Your task to perform on an android device: check out phone information Image 0: 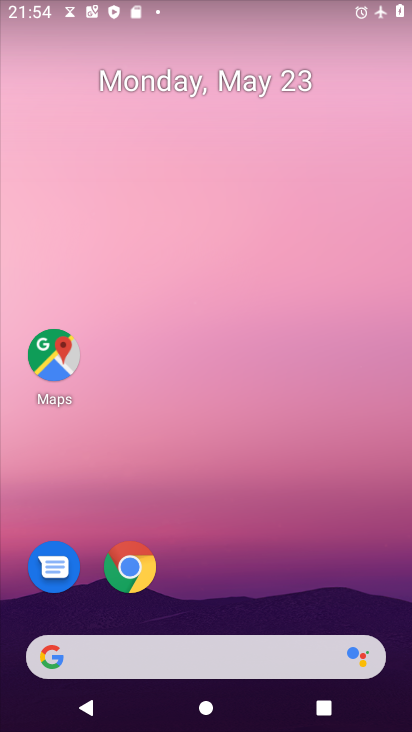
Step 0: drag from (317, 605) to (306, 287)
Your task to perform on an android device: check out phone information Image 1: 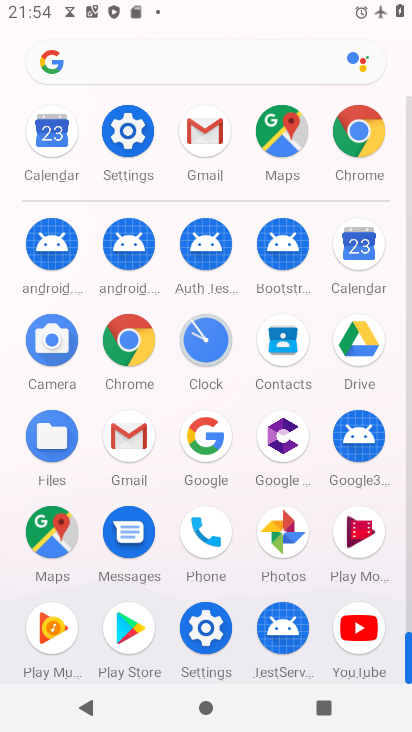
Step 1: click (134, 120)
Your task to perform on an android device: check out phone information Image 2: 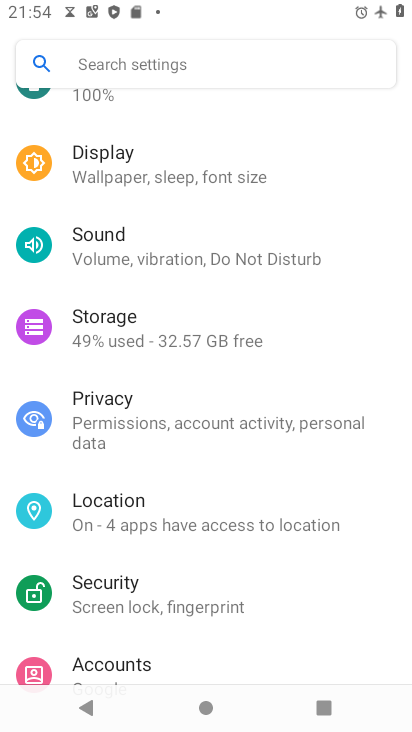
Step 2: drag from (287, 656) to (287, 264)
Your task to perform on an android device: check out phone information Image 3: 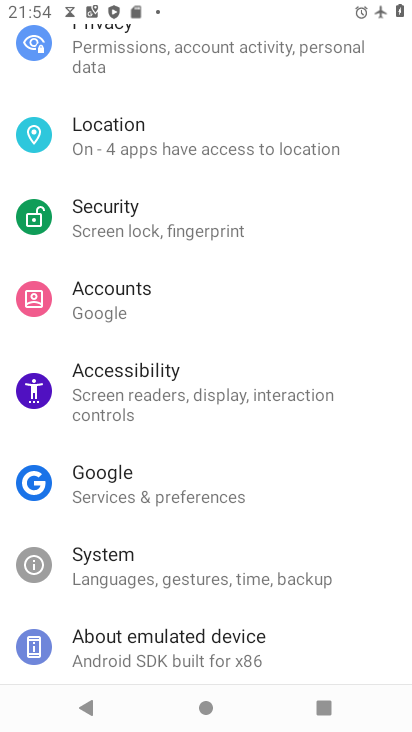
Step 3: drag from (168, 624) to (195, 330)
Your task to perform on an android device: check out phone information Image 4: 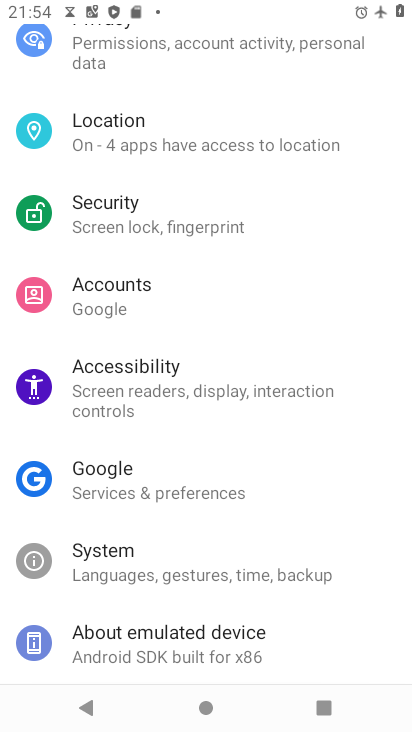
Step 4: click (166, 646)
Your task to perform on an android device: check out phone information Image 5: 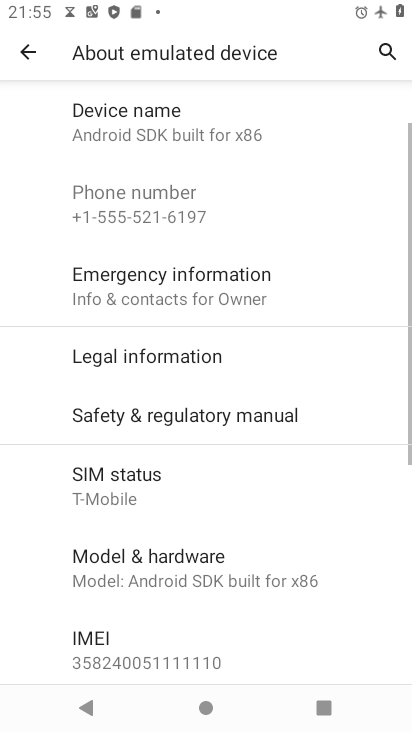
Step 5: task complete